Your task to perform on an android device: turn on priority inbox in the gmail app Image 0: 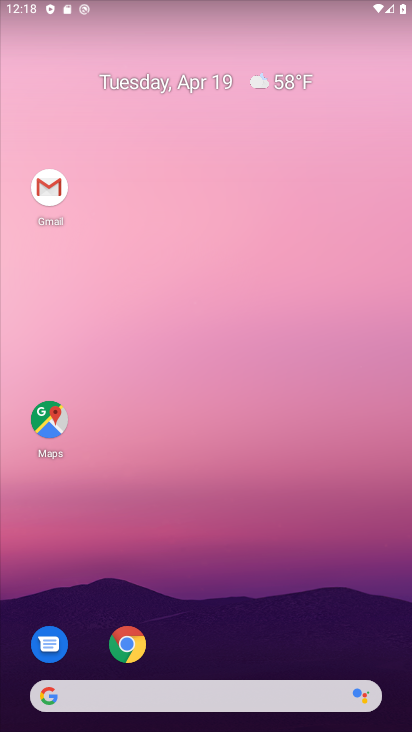
Step 0: click (50, 189)
Your task to perform on an android device: turn on priority inbox in the gmail app Image 1: 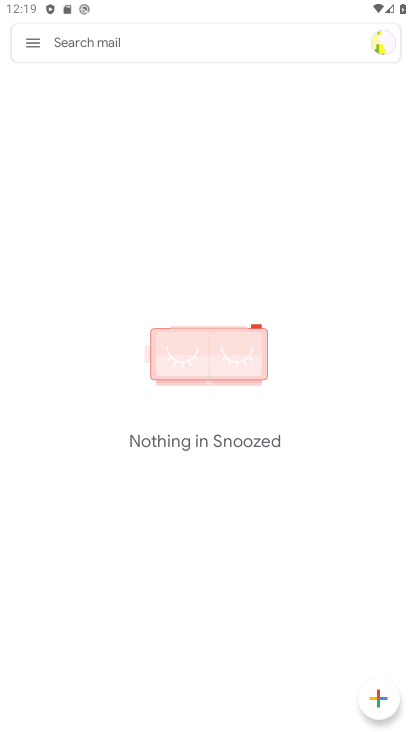
Step 1: click (32, 42)
Your task to perform on an android device: turn on priority inbox in the gmail app Image 2: 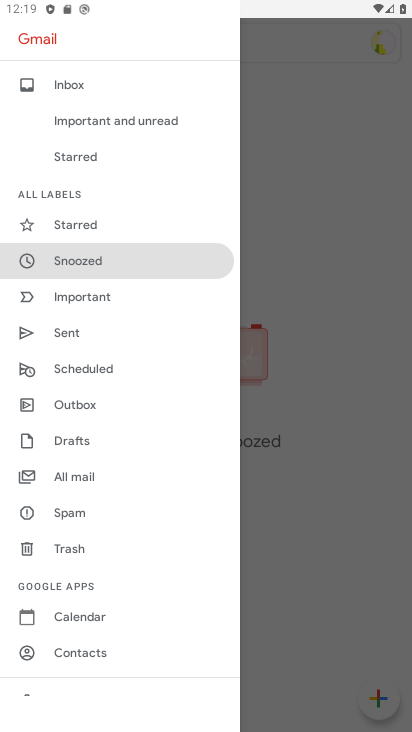
Step 2: drag from (120, 308) to (115, 535)
Your task to perform on an android device: turn on priority inbox in the gmail app Image 3: 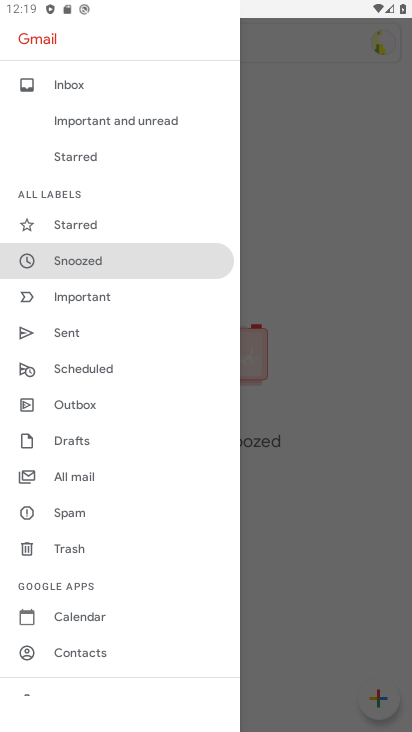
Step 3: drag from (115, 535) to (124, 241)
Your task to perform on an android device: turn on priority inbox in the gmail app Image 4: 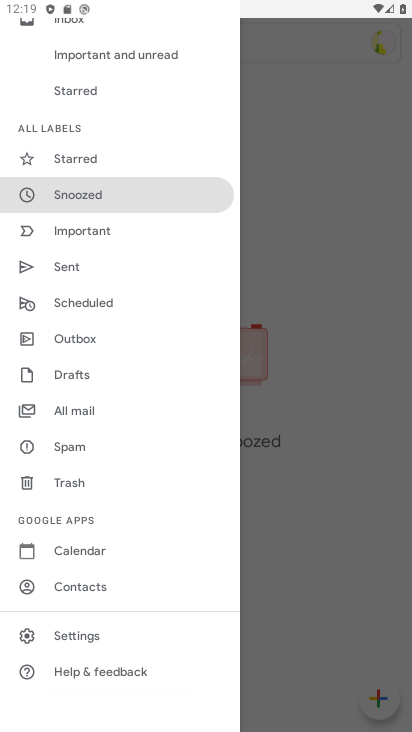
Step 4: click (103, 636)
Your task to perform on an android device: turn on priority inbox in the gmail app Image 5: 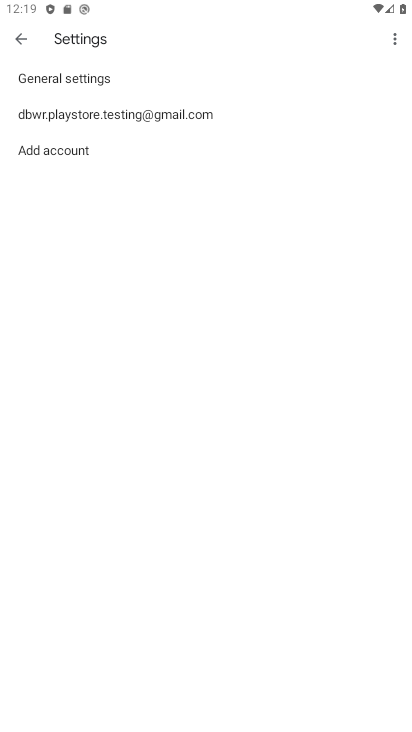
Step 5: click (143, 112)
Your task to perform on an android device: turn on priority inbox in the gmail app Image 6: 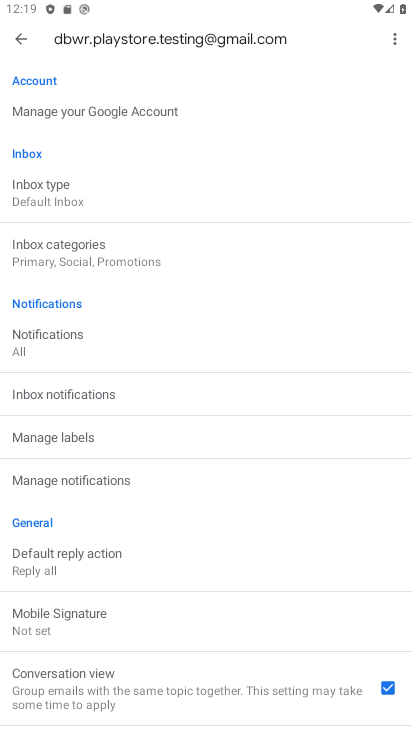
Step 6: click (127, 204)
Your task to perform on an android device: turn on priority inbox in the gmail app Image 7: 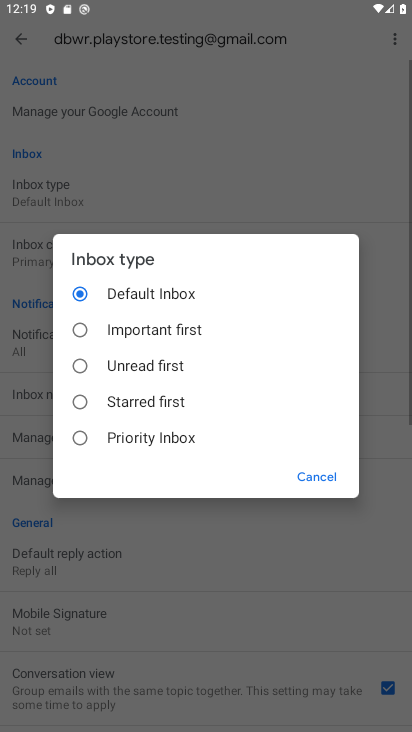
Step 7: click (127, 432)
Your task to perform on an android device: turn on priority inbox in the gmail app Image 8: 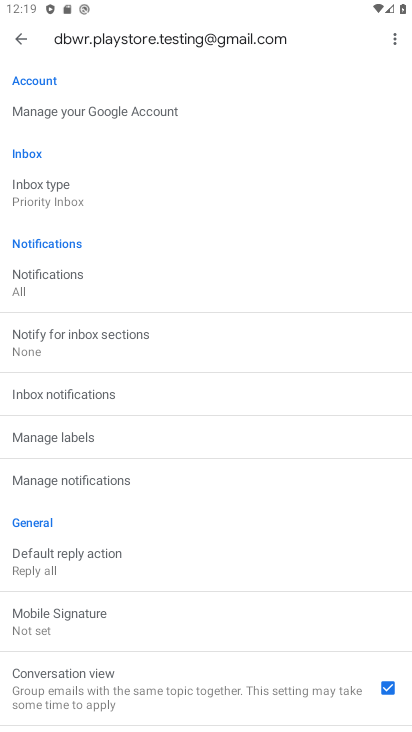
Step 8: task complete